Your task to perform on an android device: Open network settings Image 0: 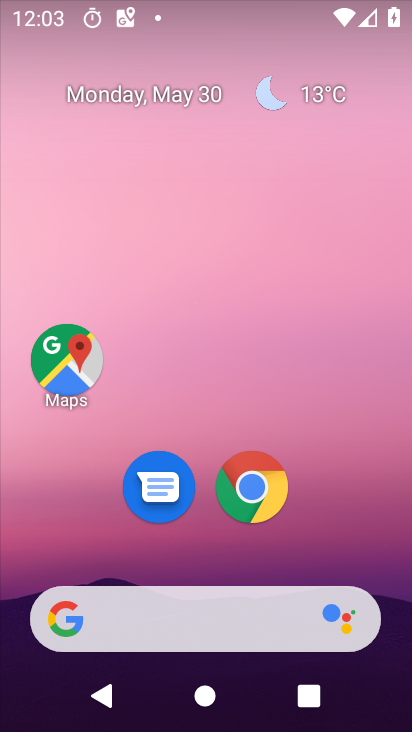
Step 0: drag from (390, 687) to (378, 142)
Your task to perform on an android device: Open network settings Image 1: 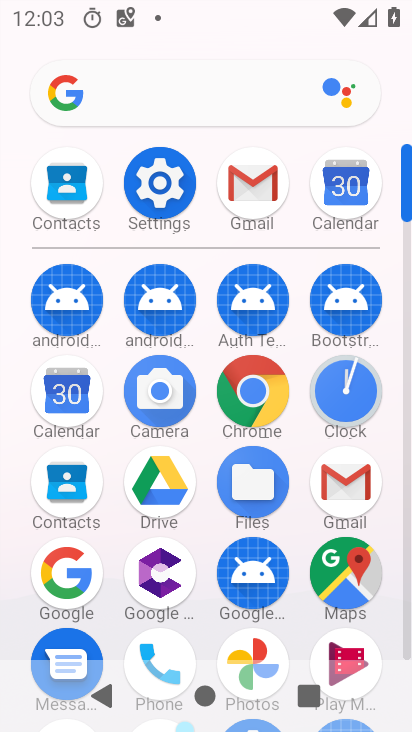
Step 1: click (178, 181)
Your task to perform on an android device: Open network settings Image 2: 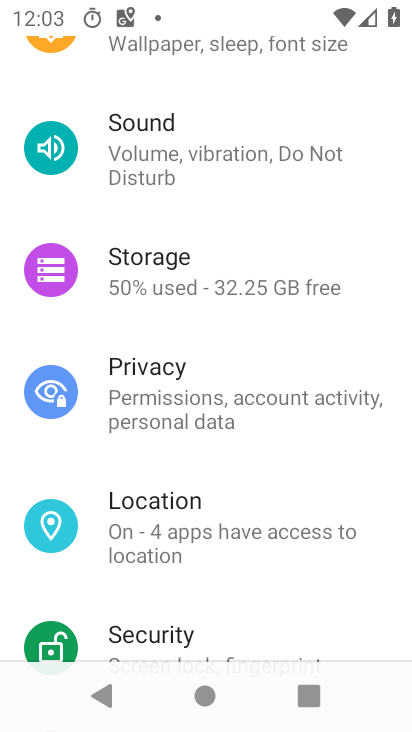
Step 2: drag from (324, 155) to (324, 574)
Your task to perform on an android device: Open network settings Image 3: 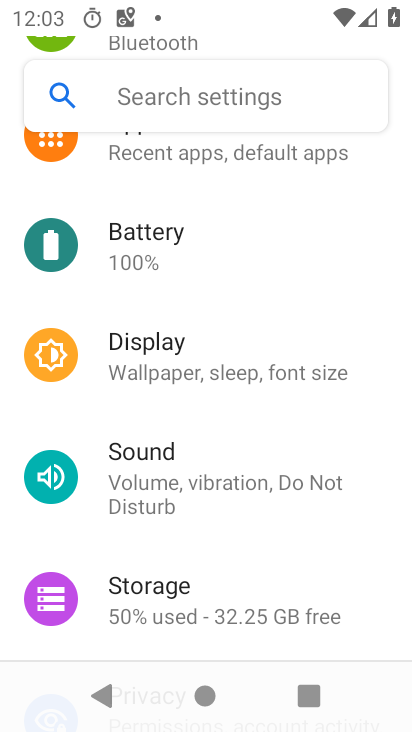
Step 3: drag from (329, 206) to (341, 634)
Your task to perform on an android device: Open network settings Image 4: 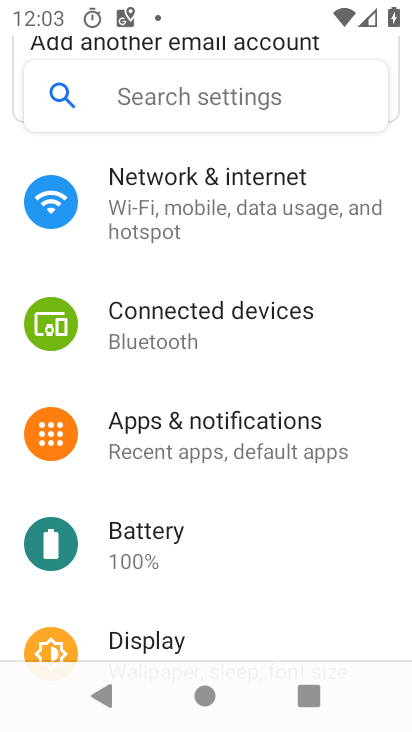
Step 4: click (196, 175)
Your task to perform on an android device: Open network settings Image 5: 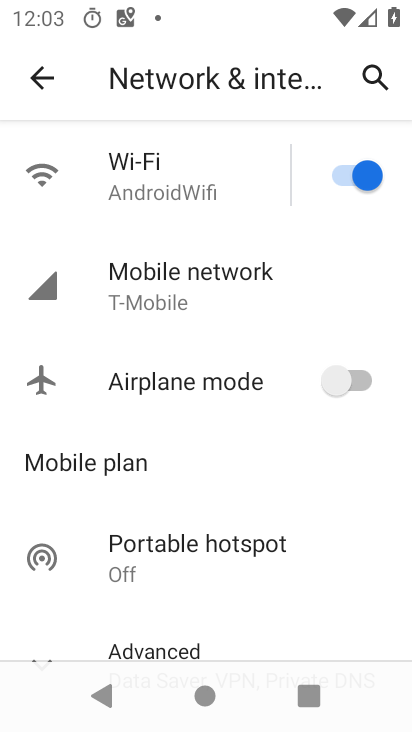
Step 5: click (177, 260)
Your task to perform on an android device: Open network settings Image 6: 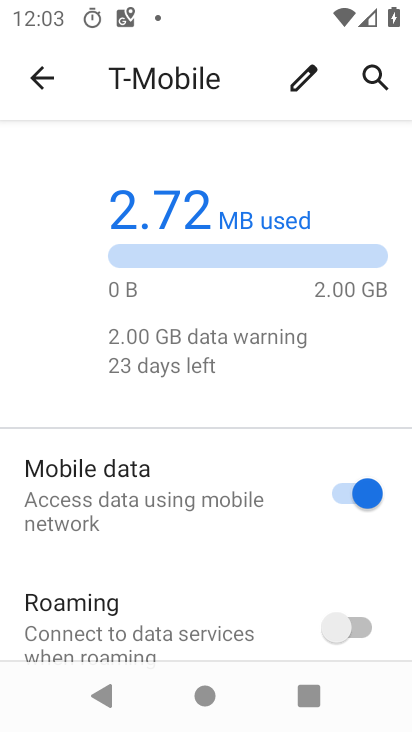
Step 6: task complete